Your task to perform on an android device: change notifications settings Image 0: 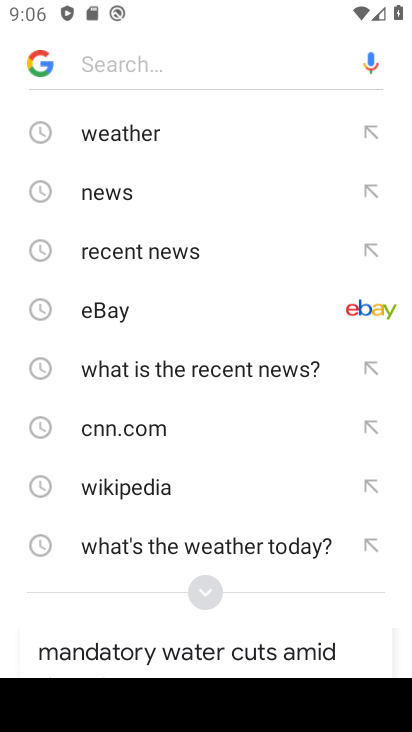
Step 0: press home button
Your task to perform on an android device: change notifications settings Image 1: 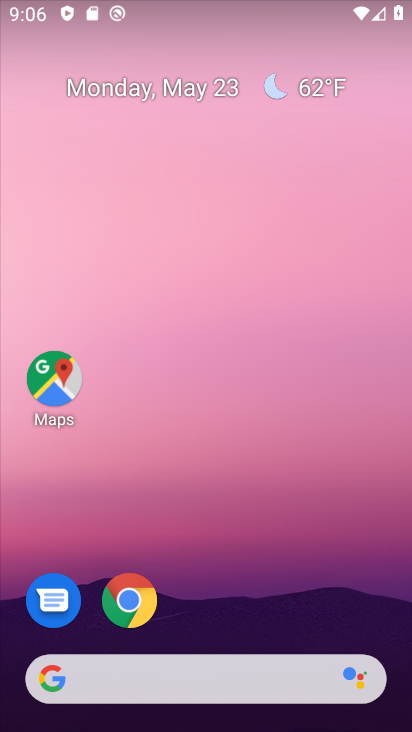
Step 1: drag from (225, 568) to (165, 36)
Your task to perform on an android device: change notifications settings Image 2: 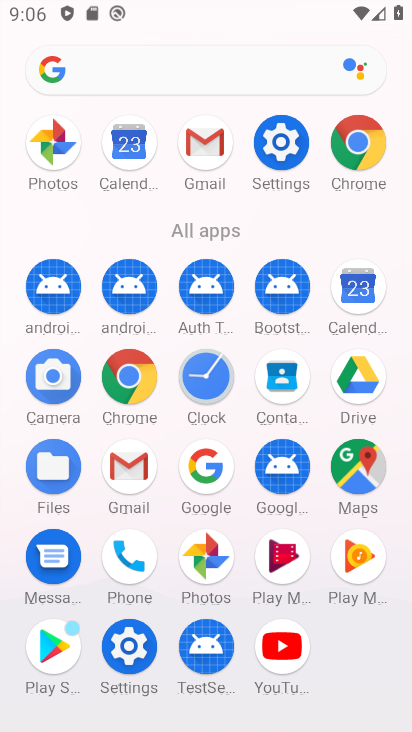
Step 2: click (275, 156)
Your task to perform on an android device: change notifications settings Image 3: 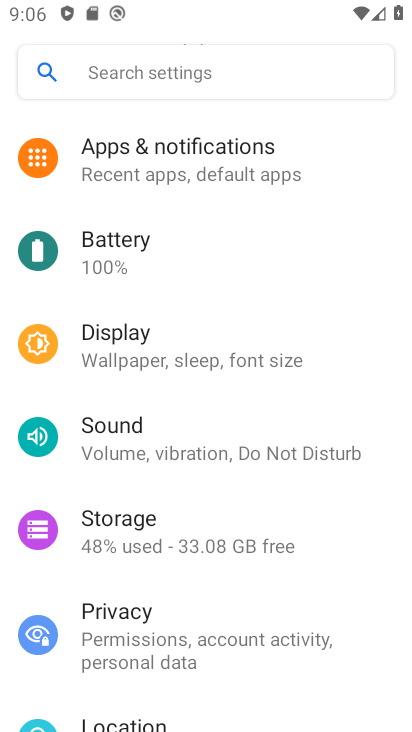
Step 3: click (250, 171)
Your task to perform on an android device: change notifications settings Image 4: 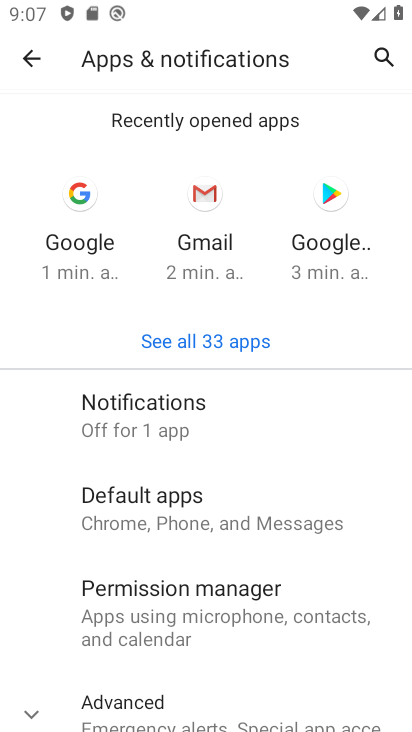
Step 4: task complete